Your task to perform on an android device: turn on bluetooth scan Image 0: 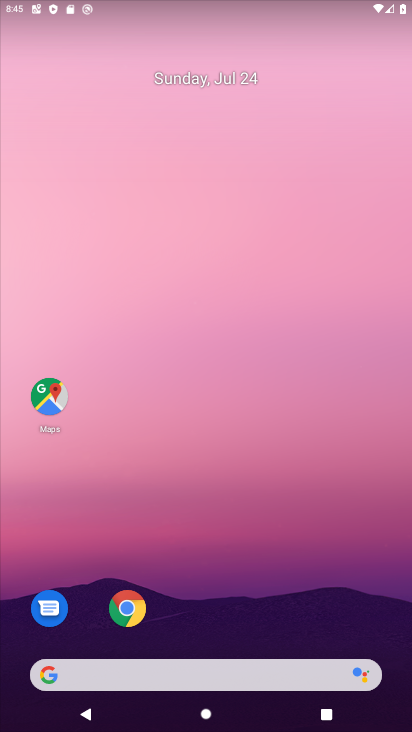
Step 0: drag from (220, 585) to (247, 29)
Your task to perform on an android device: turn on bluetooth scan Image 1: 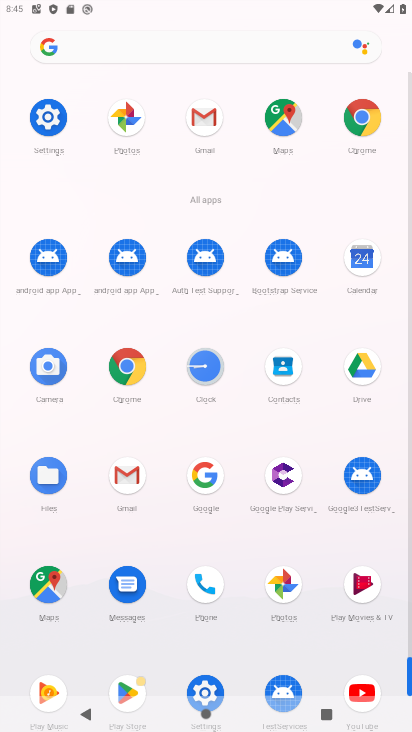
Step 1: click (213, 675)
Your task to perform on an android device: turn on bluetooth scan Image 2: 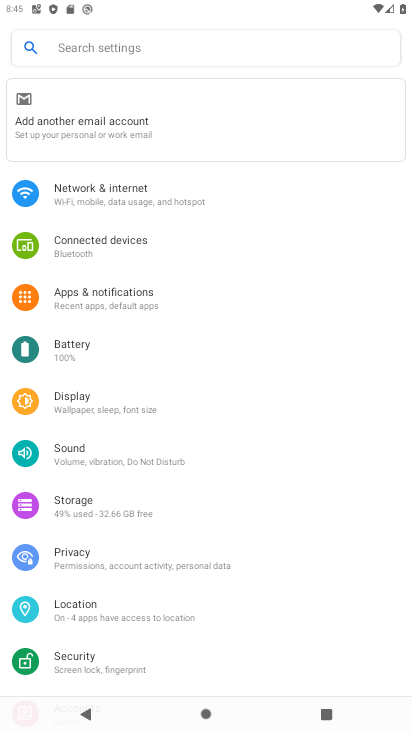
Step 2: click (108, 605)
Your task to perform on an android device: turn on bluetooth scan Image 3: 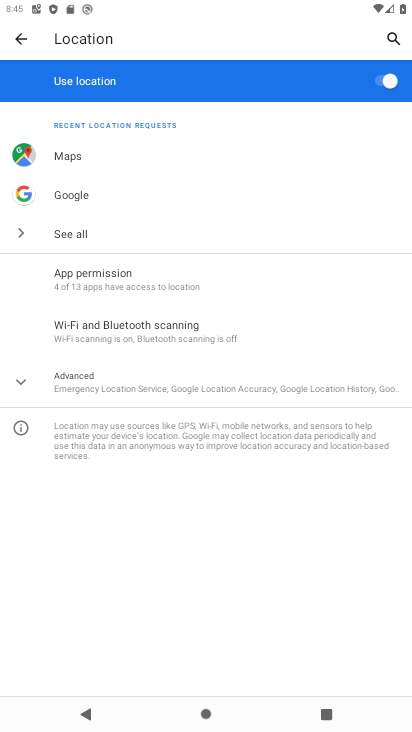
Step 3: click (161, 337)
Your task to perform on an android device: turn on bluetooth scan Image 4: 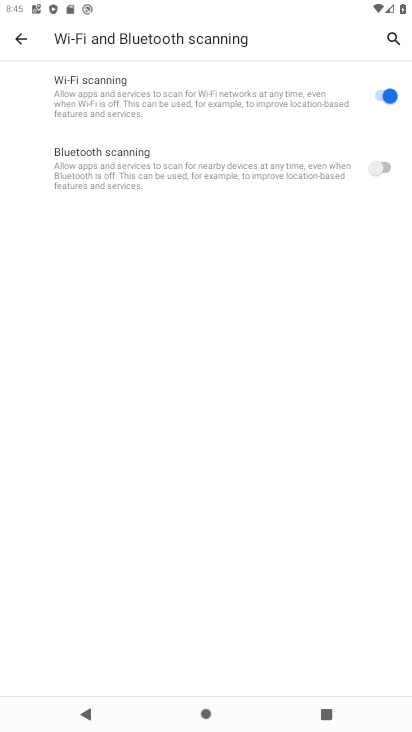
Step 4: click (374, 171)
Your task to perform on an android device: turn on bluetooth scan Image 5: 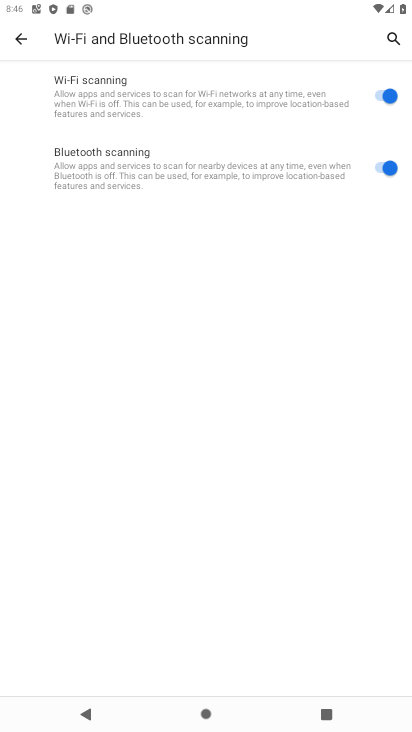
Step 5: task complete